Your task to perform on an android device: Open the stopwatch Image 0: 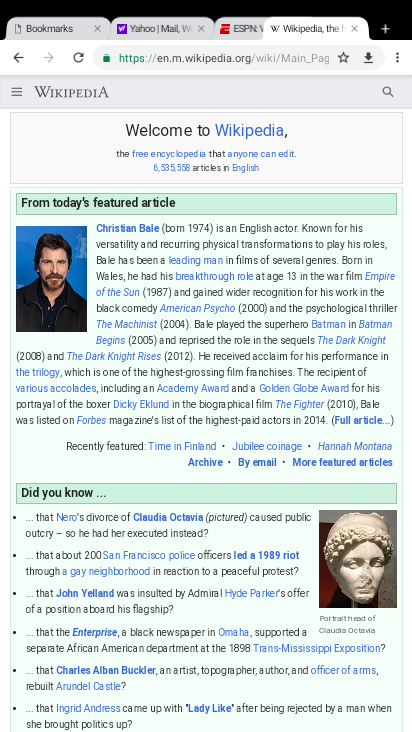
Step 0: press home button
Your task to perform on an android device: Open the stopwatch Image 1: 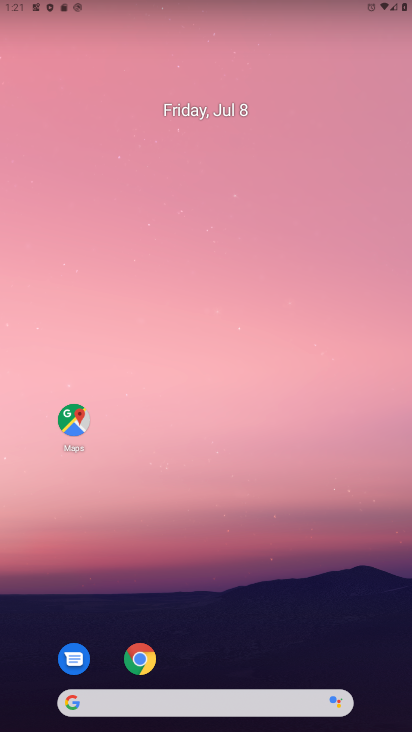
Step 1: drag from (219, 569) to (143, 101)
Your task to perform on an android device: Open the stopwatch Image 2: 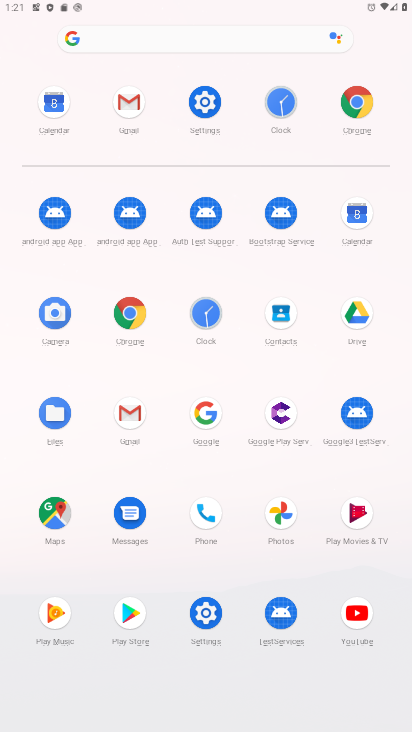
Step 2: click (279, 97)
Your task to perform on an android device: Open the stopwatch Image 3: 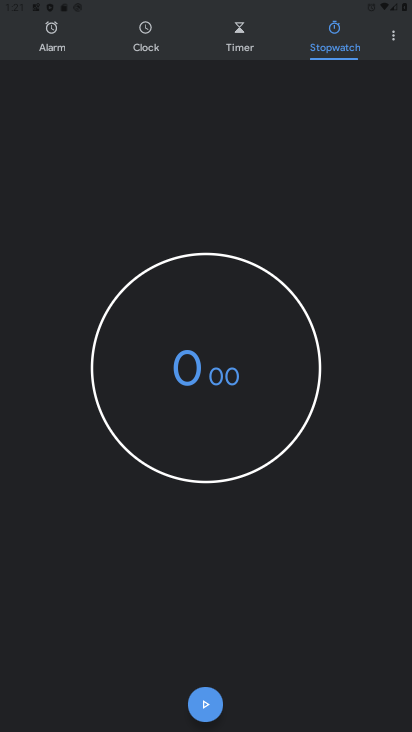
Step 3: task complete